Your task to perform on an android device: Go to internet settings Image 0: 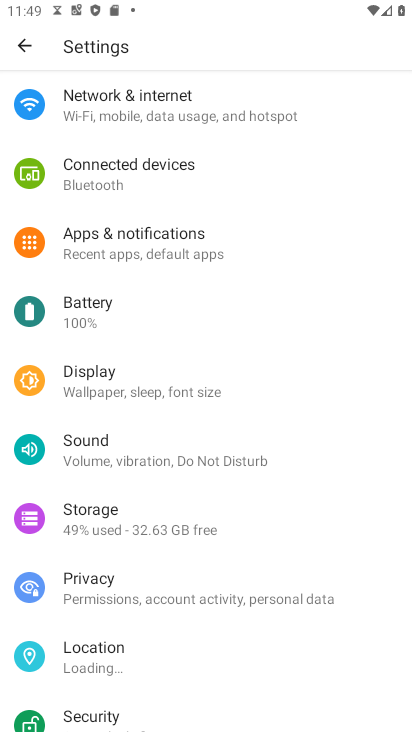
Step 0: click (165, 92)
Your task to perform on an android device: Go to internet settings Image 1: 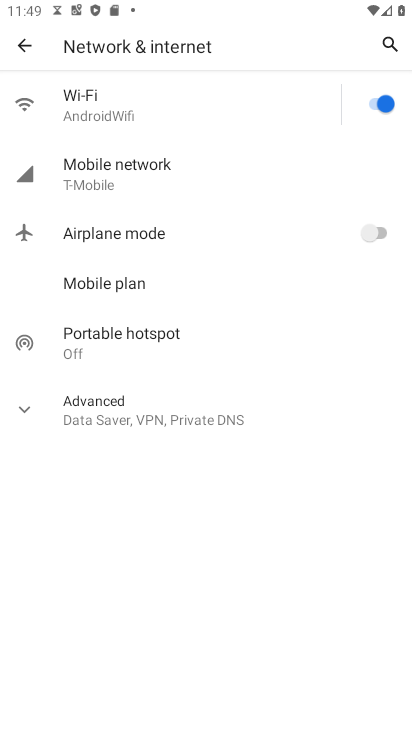
Step 1: task complete